Your task to perform on an android device: empty trash in google photos Image 0: 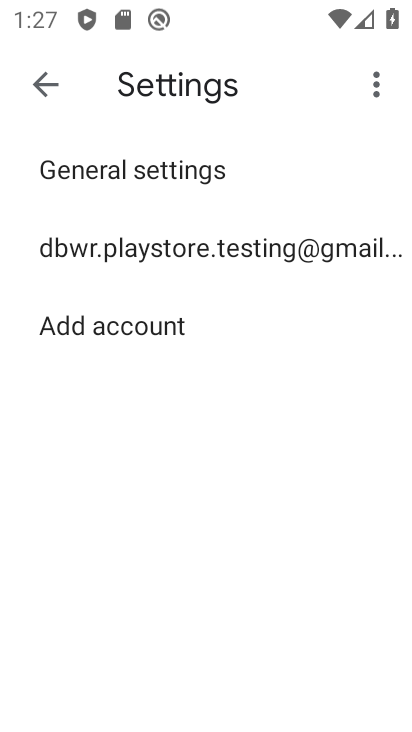
Step 0: press home button
Your task to perform on an android device: empty trash in google photos Image 1: 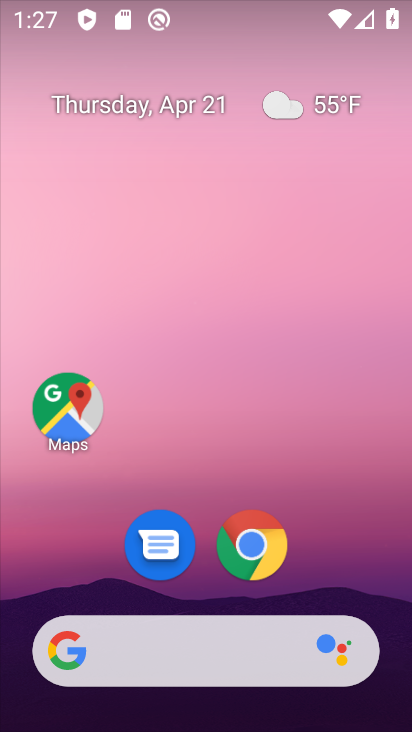
Step 1: drag from (407, 469) to (404, 64)
Your task to perform on an android device: empty trash in google photos Image 2: 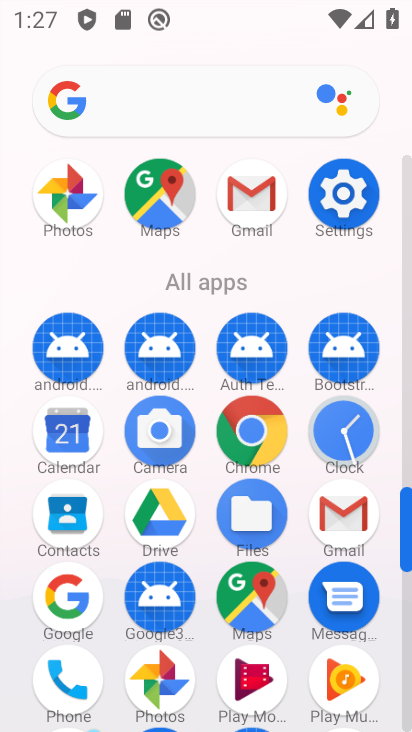
Step 2: drag from (362, 568) to (357, 185)
Your task to perform on an android device: empty trash in google photos Image 3: 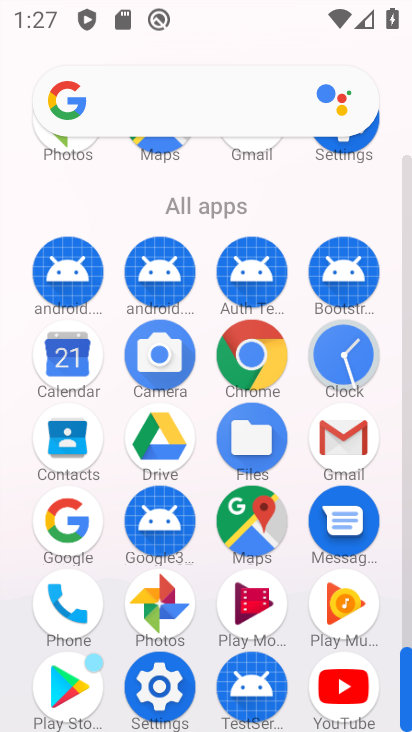
Step 3: click (150, 607)
Your task to perform on an android device: empty trash in google photos Image 4: 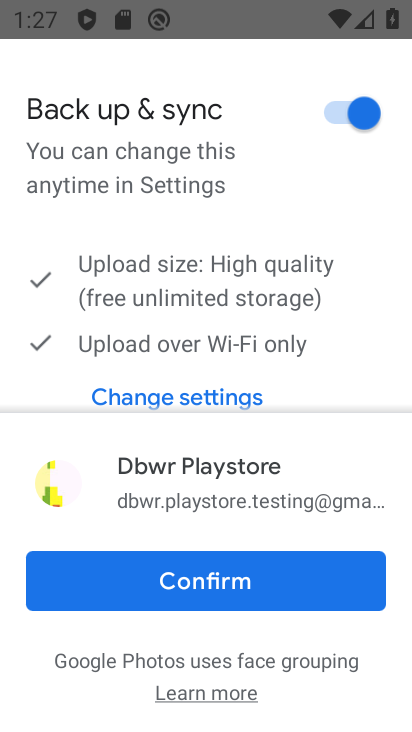
Step 4: click (257, 562)
Your task to perform on an android device: empty trash in google photos Image 5: 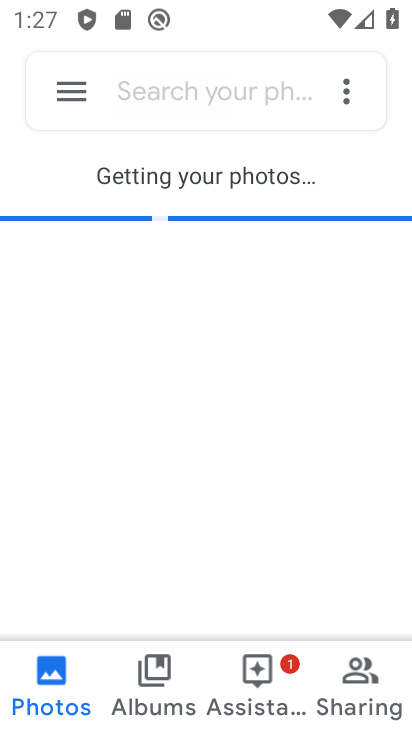
Step 5: click (67, 86)
Your task to perform on an android device: empty trash in google photos Image 6: 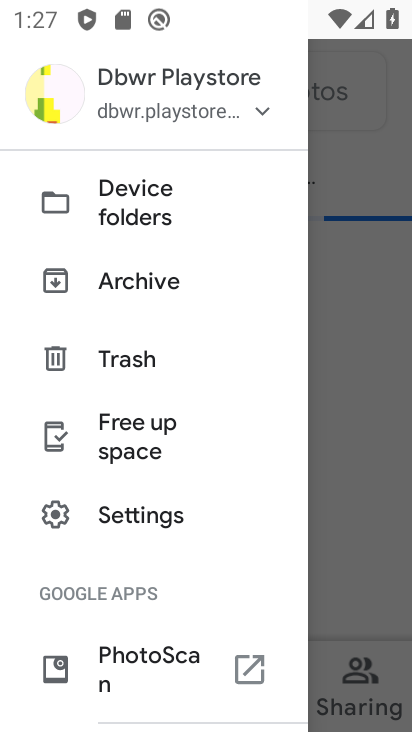
Step 6: click (108, 369)
Your task to perform on an android device: empty trash in google photos Image 7: 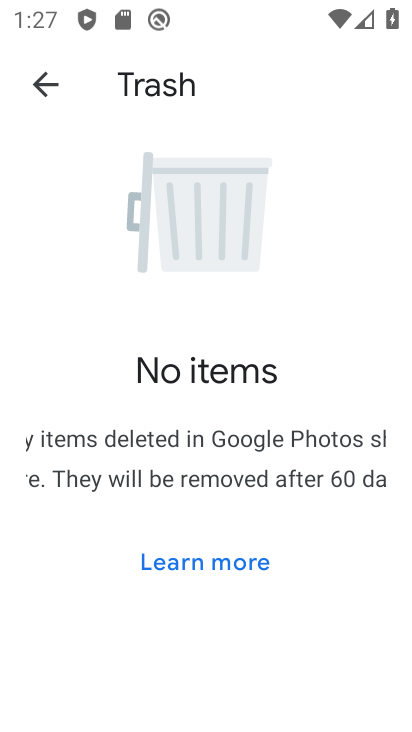
Step 7: task complete